Your task to perform on an android device: View the shopping cart on costco. Add macbook pro 15 inch to the cart on costco Image 0: 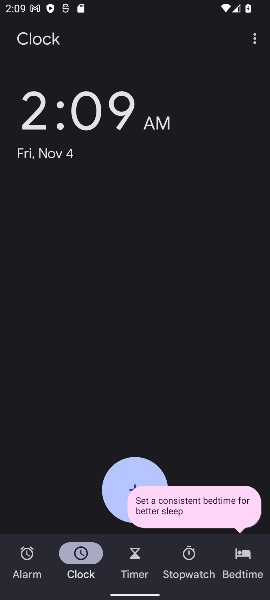
Step 0: press home button
Your task to perform on an android device: View the shopping cart on costco. Add macbook pro 15 inch to the cart on costco Image 1: 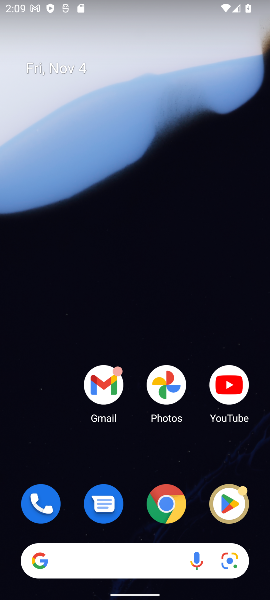
Step 1: click (169, 508)
Your task to perform on an android device: View the shopping cart on costco. Add macbook pro 15 inch to the cart on costco Image 2: 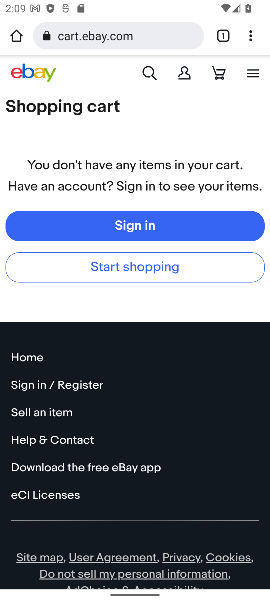
Step 2: click (131, 37)
Your task to perform on an android device: View the shopping cart on costco. Add macbook pro 15 inch to the cart on costco Image 3: 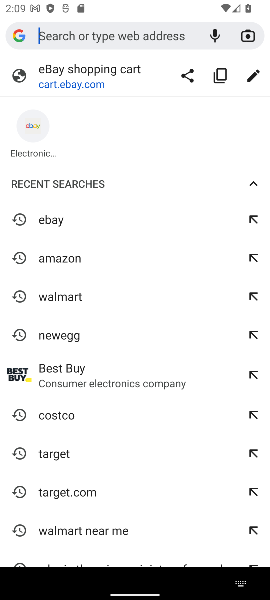
Step 3: type "costco.com"
Your task to perform on an android device: View the shopping cart on costco. Add macbook pro 15 inch to the cart on costco Image 4: 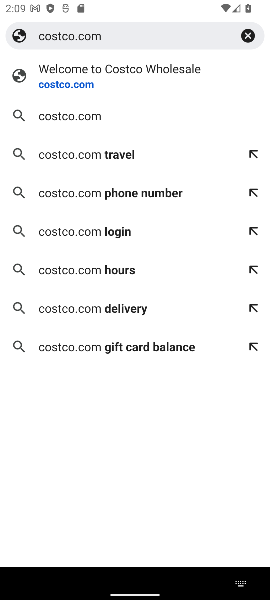
Step 4: click (71, 92)
Your task to perform on an android device: View the shopping cart on costco. Add macbook pro 15 inch to the cart on costco Image 5: 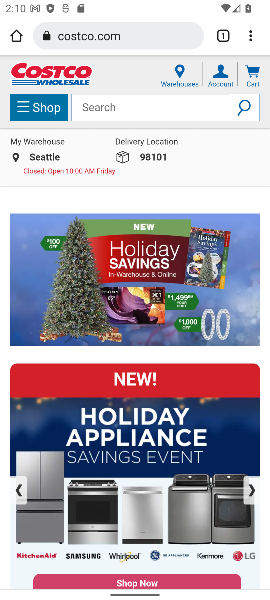
Step 5: click (257, 76)
Your task to perform on an android device: View the shopping cart on costco. Add macbook pro 15 inch to the cart on costco Image 6: 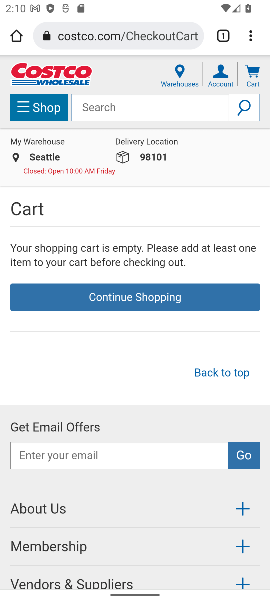
Step 6: click (100, 108)
Your task to perform on an android device: View the shopping cart on costco. Add macbook pro 15 inch to the cart on costco Image 7: 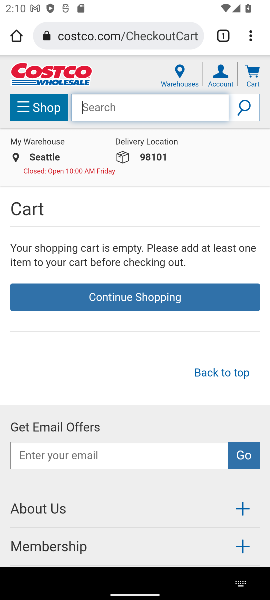
Step 7: type "macbook pro 15 inch "
Your task to perform on an android device: View the shopping cart on costco. Add macbook pro 15 inch to the cart on costco Image 8: 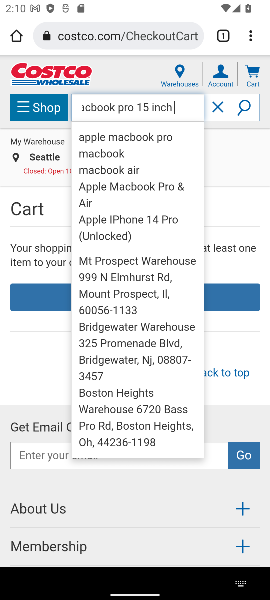
Step 8: click (244, 107)
Your task to perform on an android device: View the shopping cart on costco. Add macbook pro 15 inch to the cart on costco Image 9: 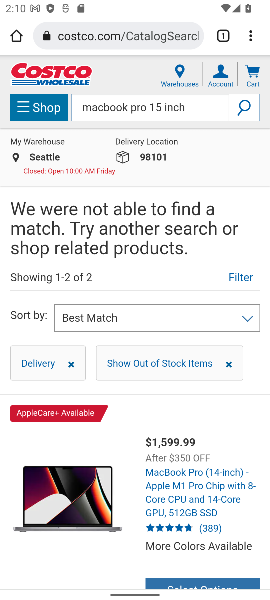
Step 9: task complete